Your task to perform on an android device: Search for sushi restaurants on Maps Image 0: 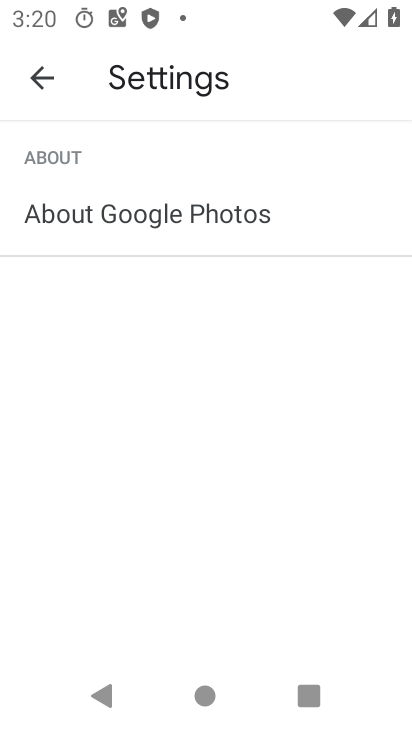
Step 0: press home button
Your task to perform on an android device: Search for sushi restaurants on Maps Image 1: 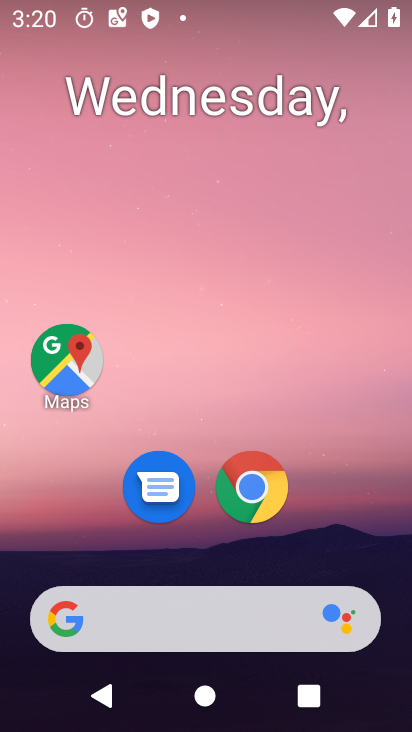
Step 1: drag from (201, 620) to (266, 194)
Your task to perform on an android device: Search for sushi restaurants on Maps Image 2: 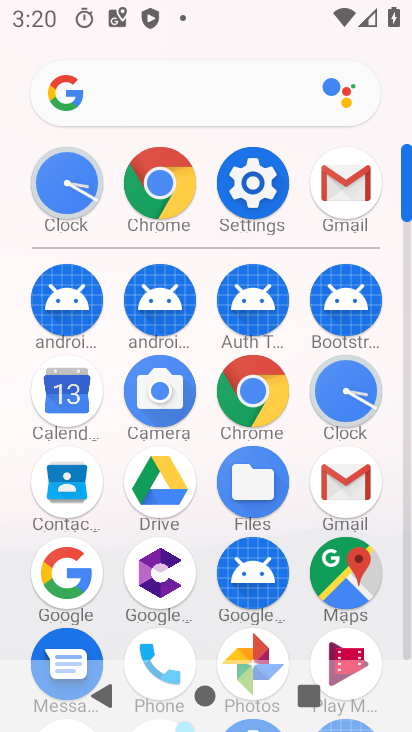
Step 2: drag from (227, 555) to (208, 421)
Your task to perform on an android device: Search for sushi restaurants on Maps Image 3: 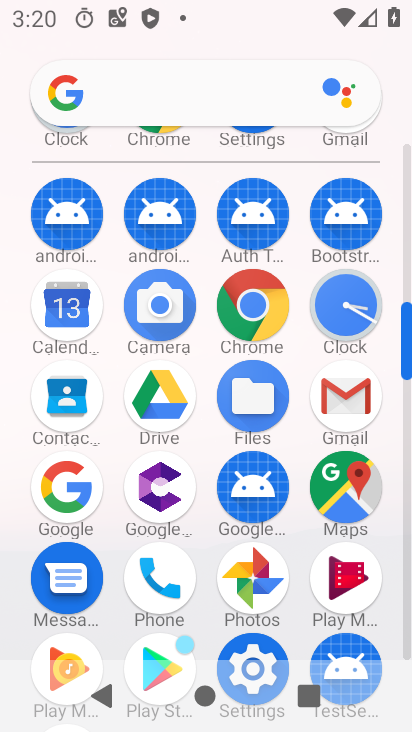
Step 3: click (358, 492)
Your task to perform on an android device: Search for sushi restaurants on Maps Image 4: 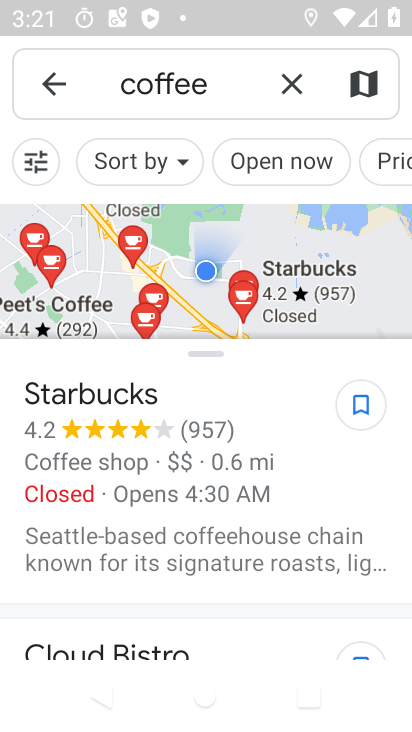
Step 4: click (283, 85)
Your task to perform on an android device: Search for sushi restaurants on Maps Image 5: 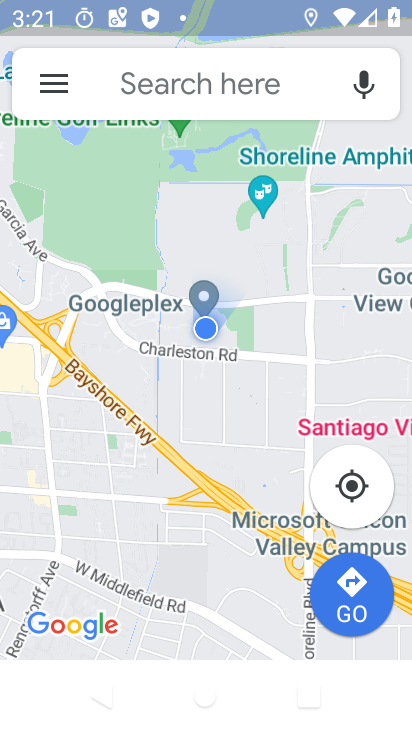
Step 5: click (190, 88)
Your task to perform on an android device: Search for sushi restaurants on Maps Image 6: 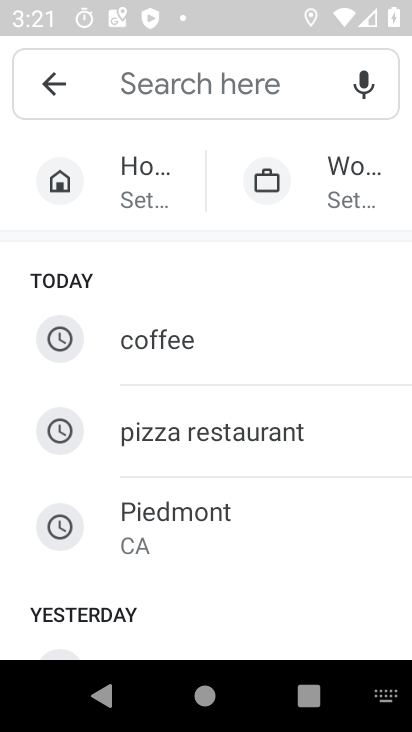
Step 6: drag from (232, 530) to (218, 201)
Your task to perform on an android device: Search for sushi restaurants on Maps Image 7: 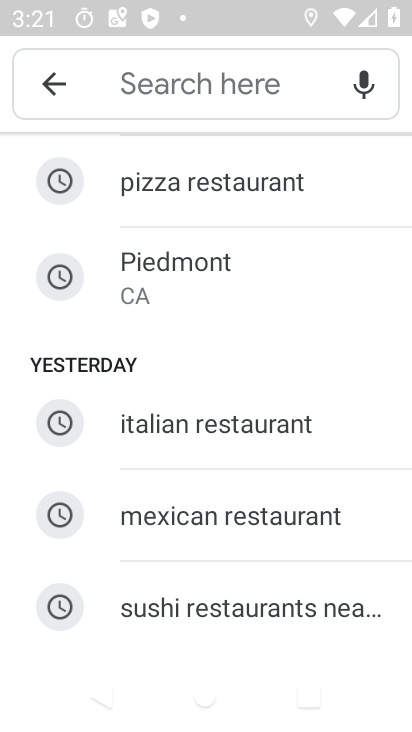
Step 7: click (236, 607)
Your task to perform on an android device: Search for sushi restaurants on Maps Image 8: 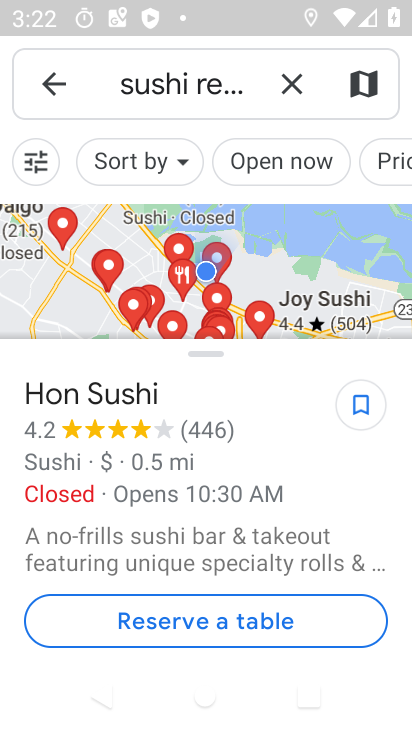
Step 8: task complete